Your task to perform on an android device: Open the stopwatch Image 0: 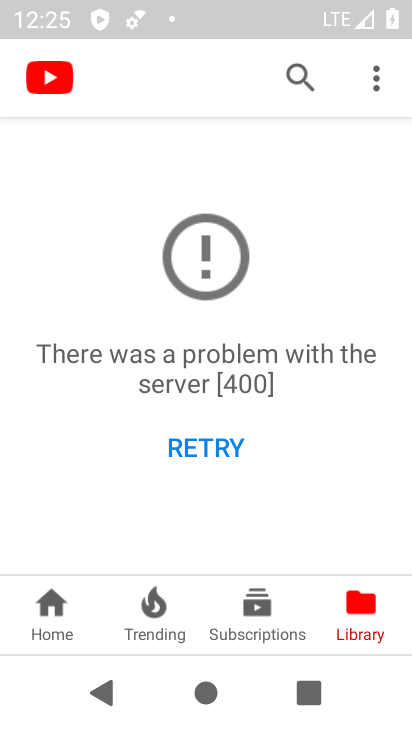
Step 0: press back button
Your task to perform on an android device: Open the stopwatch Image 1: 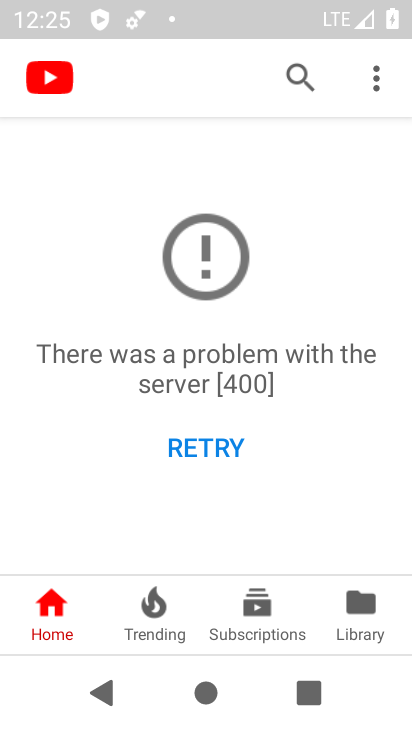
Step 1: press home button
Your task to perform on an android device: Open the stopwatch Image 2: 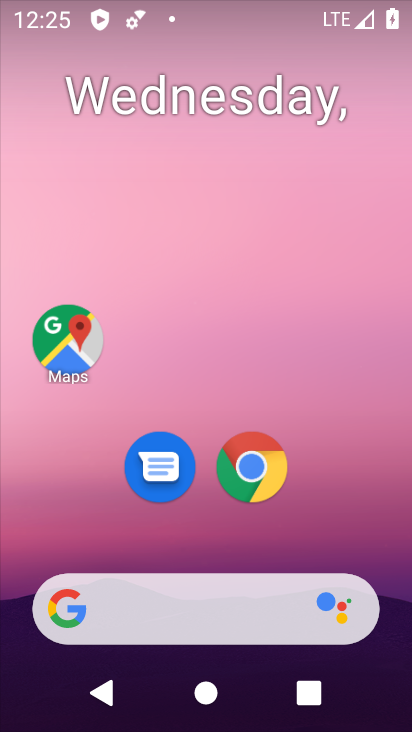
Step 2: drag from (351, 519) to (360, 125)
Your task to perform on an android device: Open the stopwatch Image 3: 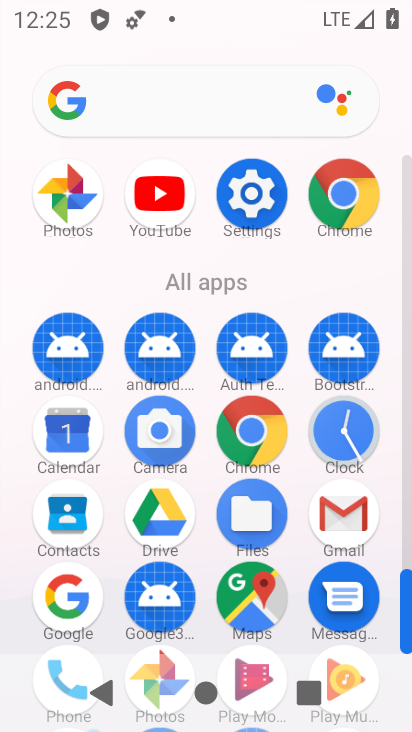
Step 3: click (358, 440)
Your task to perform on an android device: Open the stopwatch Image 4: 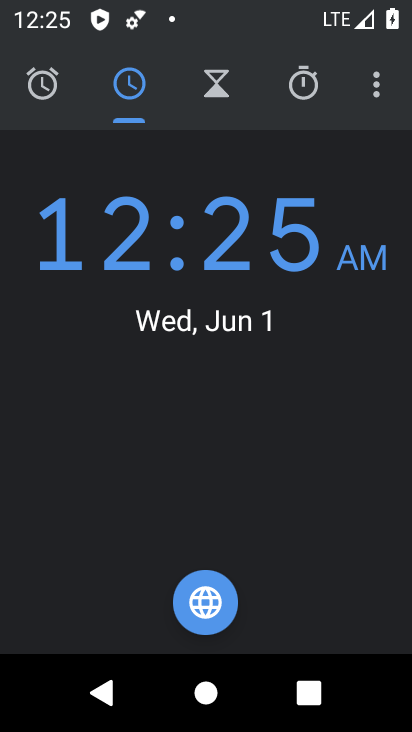
Step 4: click (307, 94)
Your task to perform on an android device: Open the stopwatch Image 5: 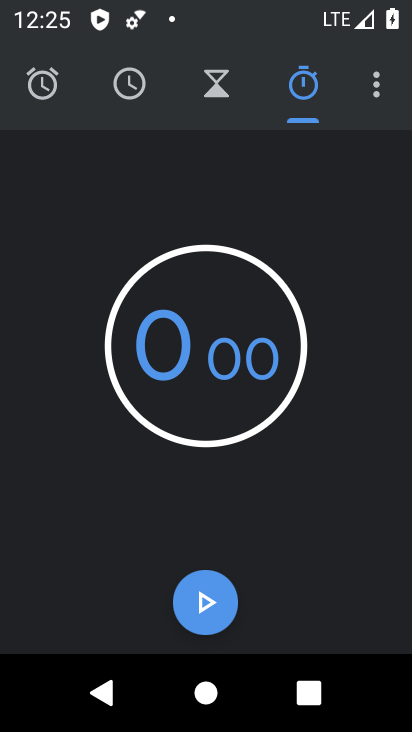
Step 5: task complete